Your task to perform on an android device: set the timer Image 0: 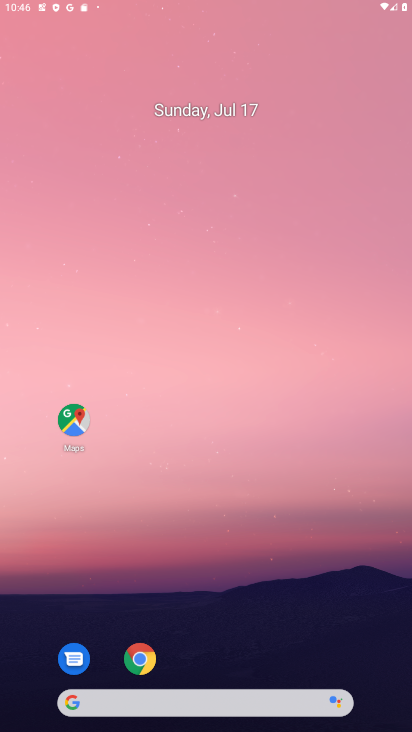
Step 0: click (177, 121)
Your task to perform on an android device: set the timer Image 1: 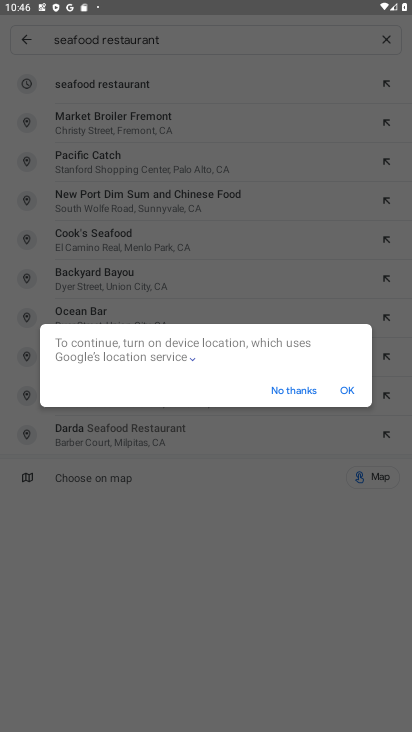
Step 1: press home button
Your task to perform on an android device: set the timer Image 2: 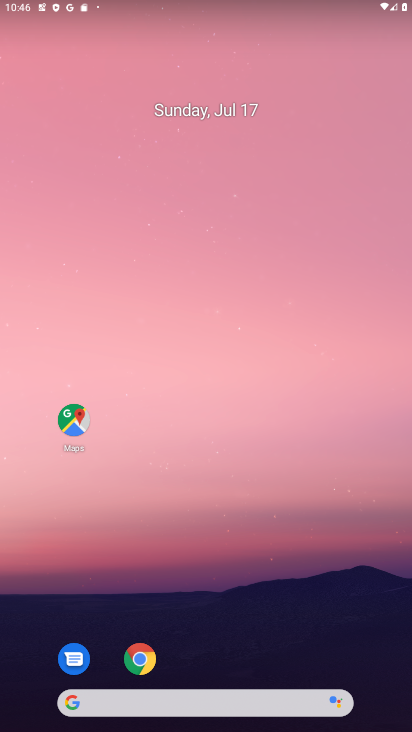
Step 2: drag from (277, 681) to (206, 164)
Your task to perform on an android device: set the timer Image 3: 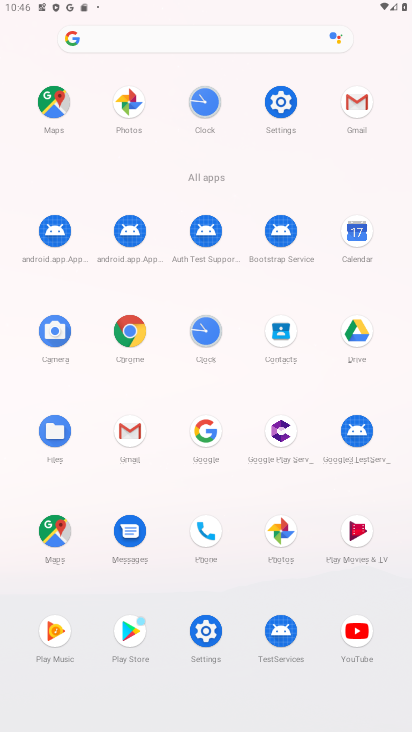
Step 3: click (187, 103)
Your task to perform on an android device: set the timer Image 4: 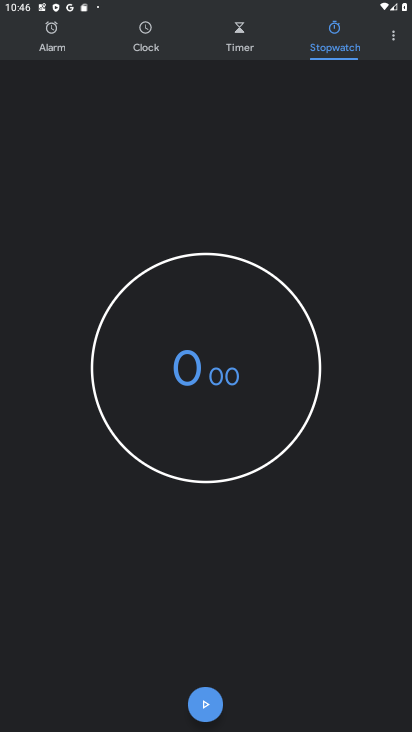
Step 4: click (232, 50)
Your task to perform on an android device: set the timer Image 5: 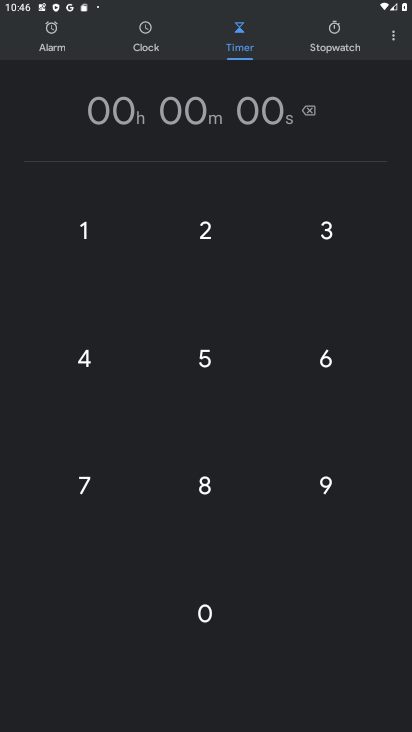
Step 5: click (213, 324)
Your task to perform on an android device: set the timer Image 6: 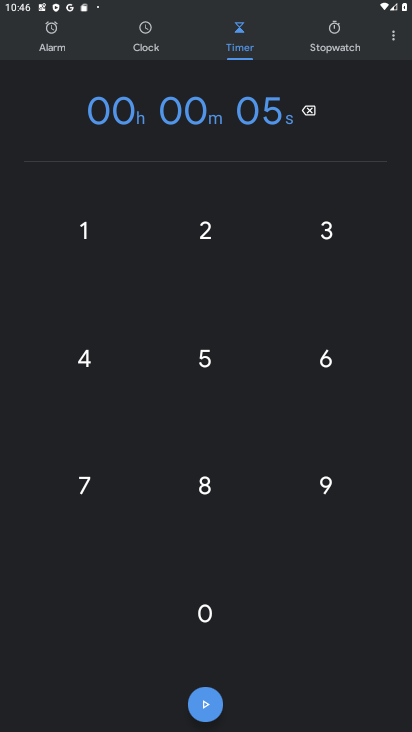
Step 6: task complete